Your task to perform on an android device: Open settings Image 0: 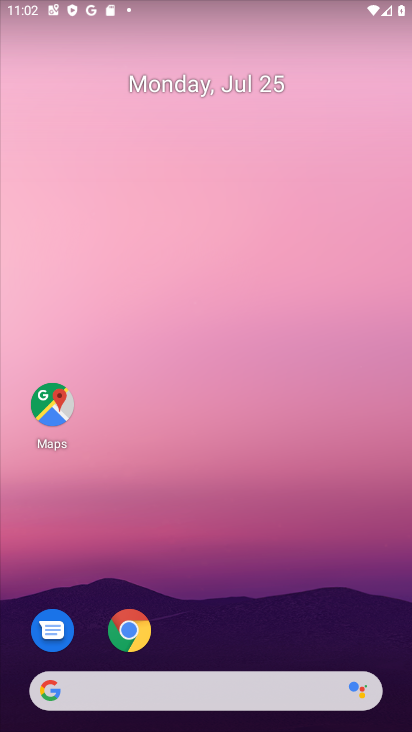
Step 0: drag from (228, 641) to (216, 7)
Your task to perform on an android device: Open settings Image 1: 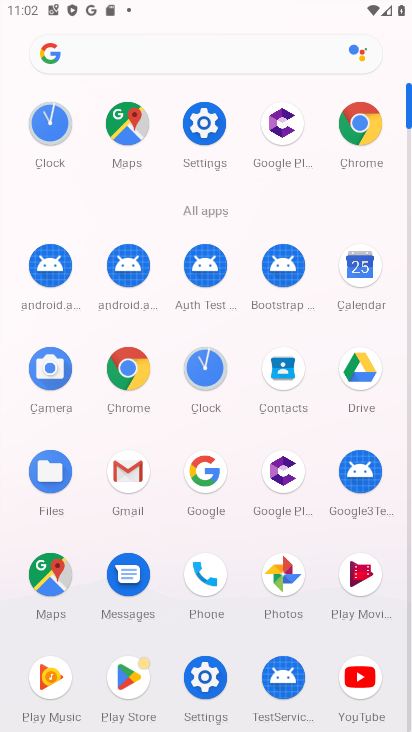
Step 1: click (213, 118)
Your task to perform on an android device: Open settings Image 2: 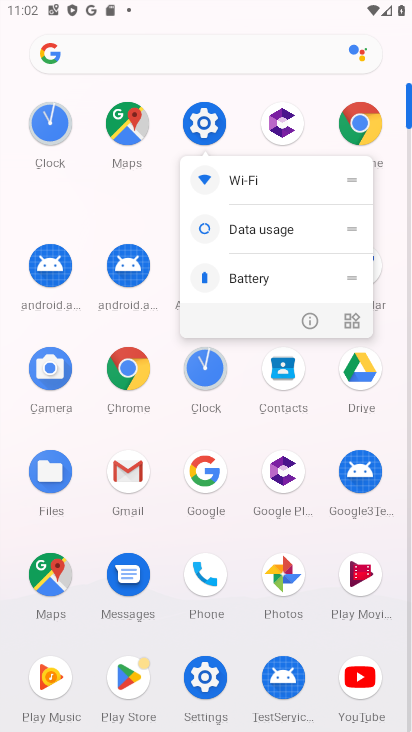
Step 2: click (197, 125)
Your task to perform on an android device: Open settings Image 3: 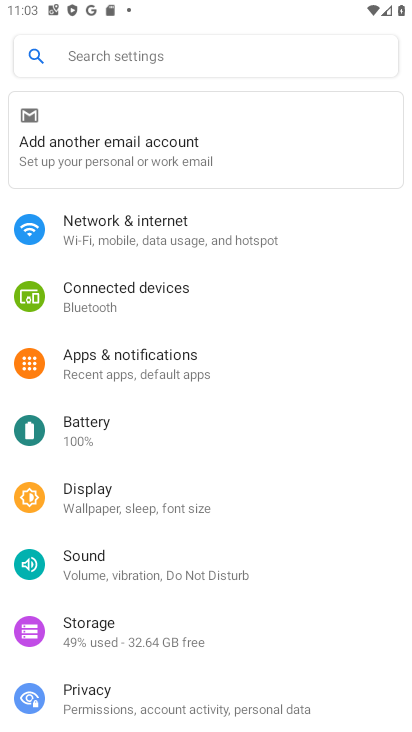
Step 3: task complete